Your task to perform on an android device: turn off sleep mode Image 0: 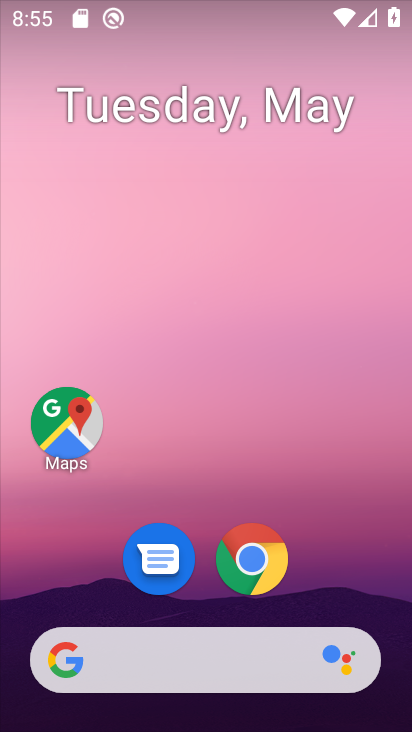
Step 0: drag from (351, 538) to (242, 52)
Your task to perform on an android device: turn off sleep mode Image 1: 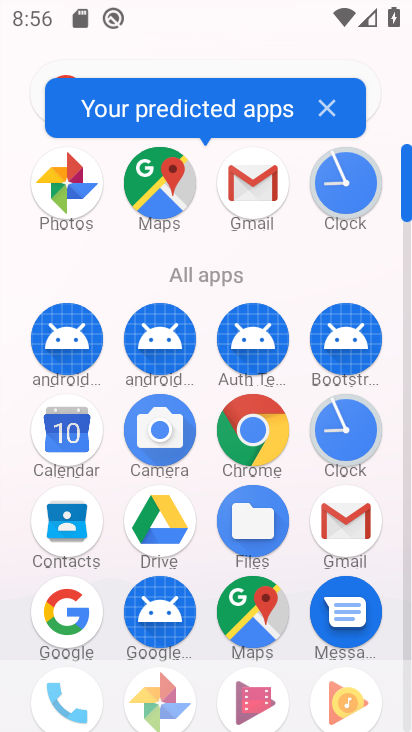
Step 1: drag from (200, 486) to (214, 240)
Your task to perform on an android device: turn off sleep mode Image 2: 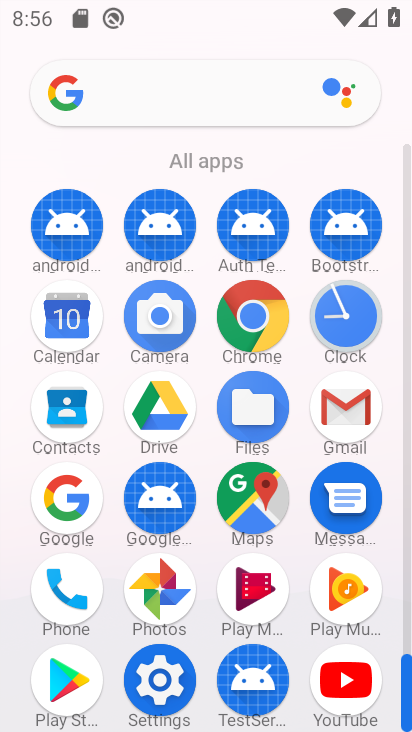
Step 2: click (155, 680)
Your task to perform on an android device: turn off sleep mode Image 3: 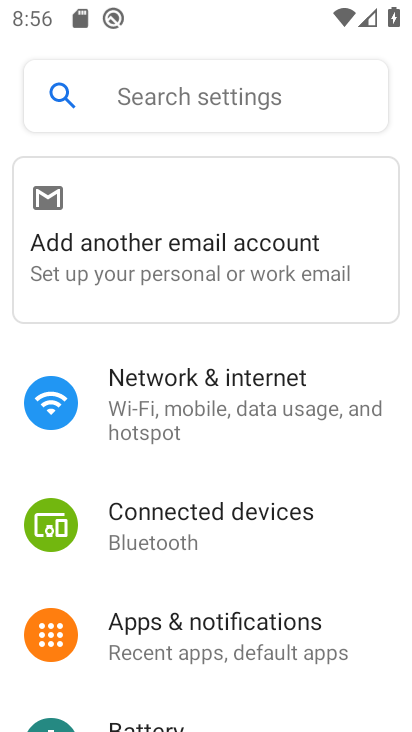
Step 3: drag from (168, 594) to (225, 457)
Your task to perform on an android device: turn off sleep mode Image 4: 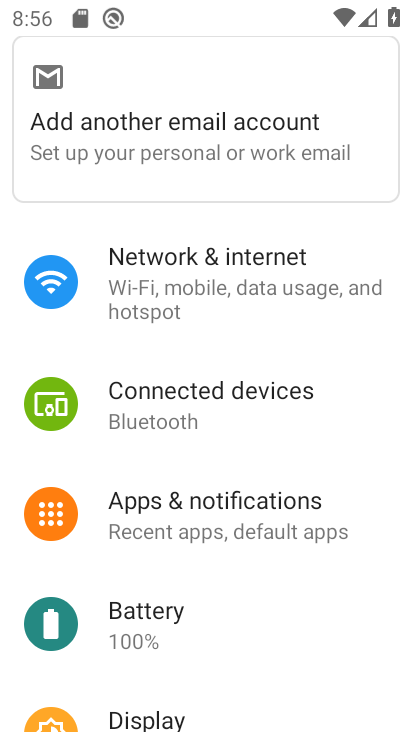
Step 4: drag from (221, 570) to (272, 461)
Your task to perform on an android device: turn off sleep mode Image 5: 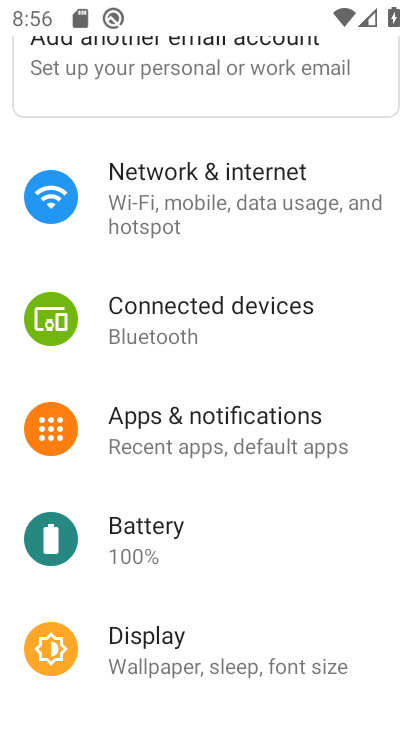
Step 5: drag from (221, 605) to (271, 491)
Your task to perform on an android device: turn off sleep mode Image 6: 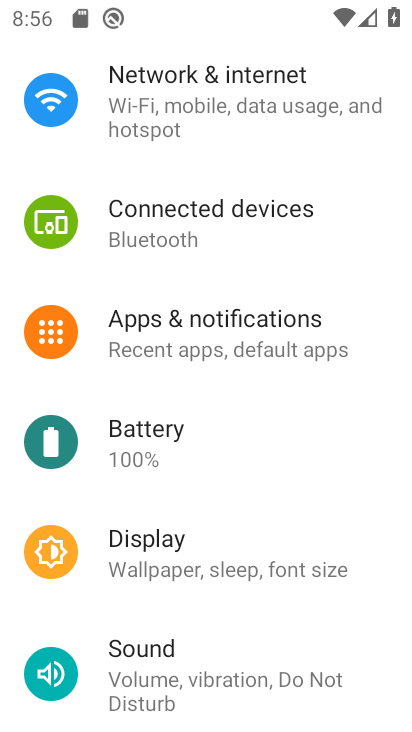
Step 6: click (214, 568)
Your task to perform on an android device: turn off sleep mode Image 7: 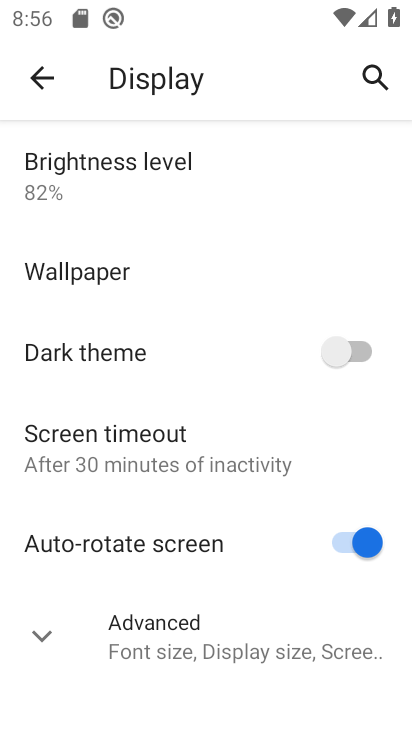
Step 7: drag from (212, 600) to (253, 407)
Your task to perform on an android device: turn off sleep mode Image 8: 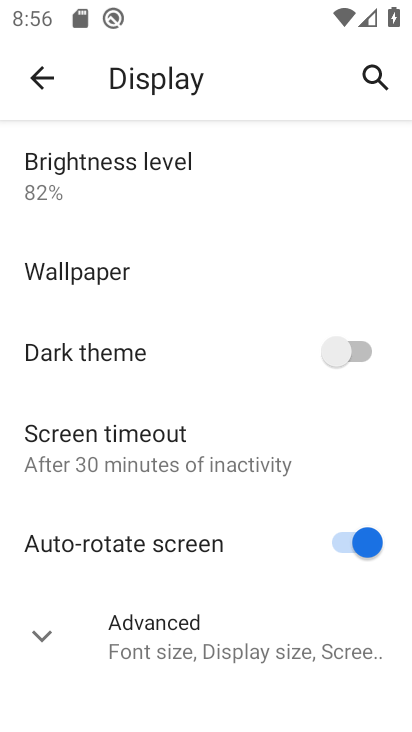
Step 8: click (182, 643)
Your task to perform on an android device: turn off sleep mode Image 9: 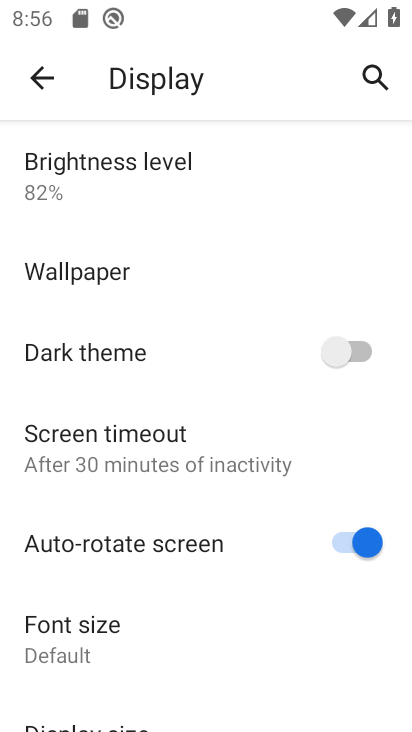
Step 9: task complete